Your task to perform on an android device: Open Youtube and go to the subscriptions tab Image 0: 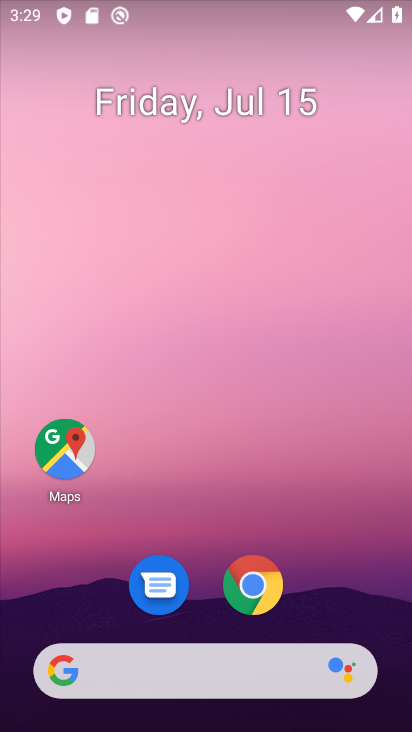
Step 0: drag from (217, 488) to (255, 28)
Your task to perform on an android device: Open Youtube and go to the subscriptions tab Image 1: 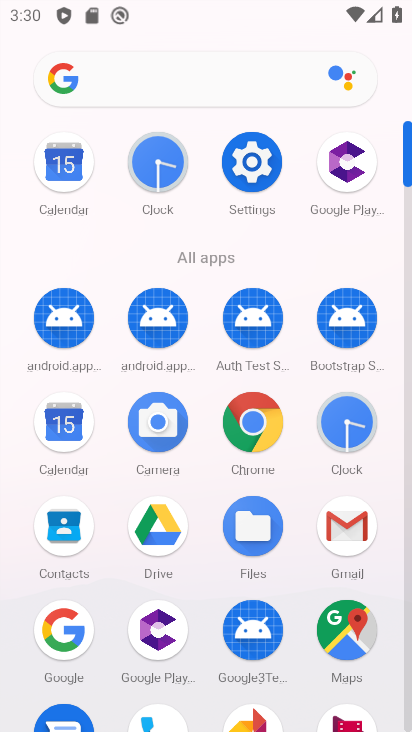
Step 1: drag from (215, 573) to (234, 132)
Your task to perform on an android device: Open Youtube and go to the subscriptions tab Image 2: 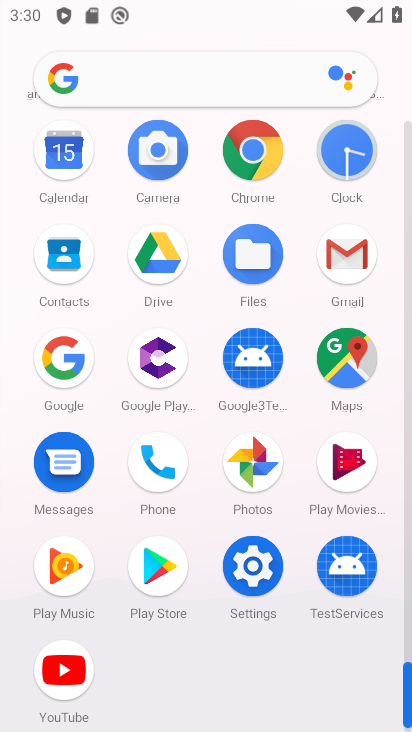
Step 2: click (72, 669)
Your task to perform on an android device: Open Youtube and go to the subscriptions tab Image 3: 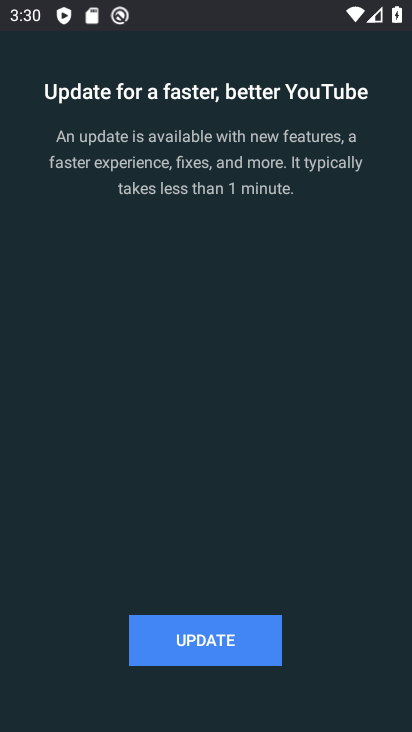
Step 3: click (176, 649)
Your task to perform on an android device: Open Youtube and go to the subscriptions tab Image 4: 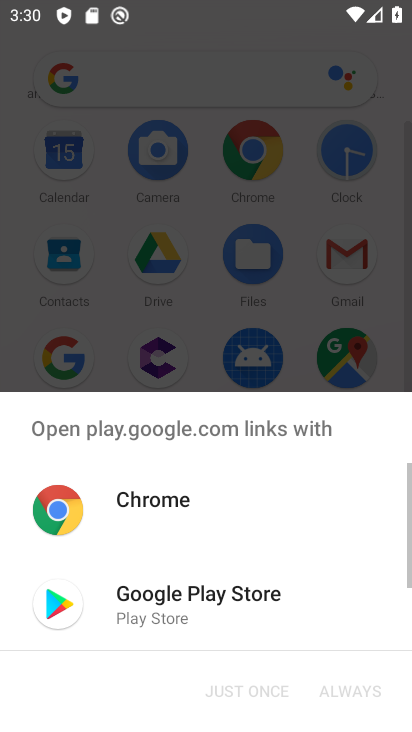
Step 4: click (163, 586)
Your task to perform on an android device: Open Youtube and go to the subscriptions tab Image 5: 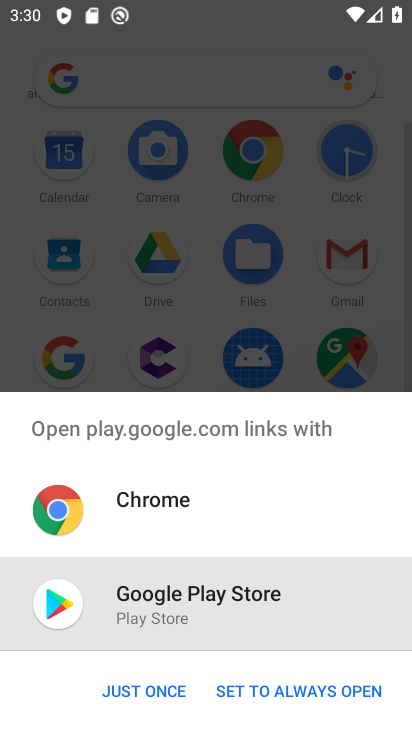
Step 5: click (159, 692)
Your task to perform on an android device: Open Youtube and go to the subscriptions tab Image 6: 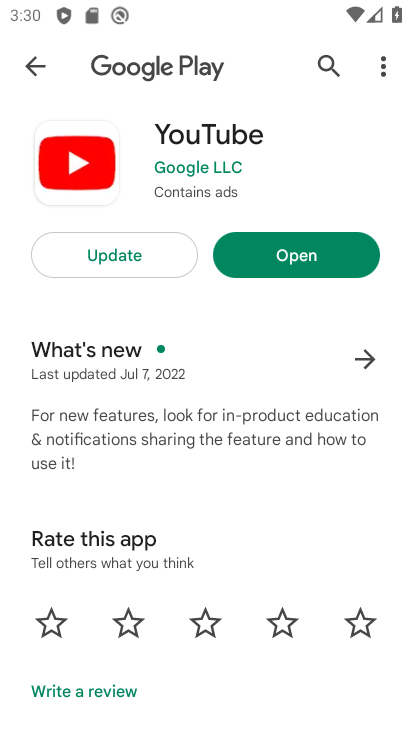
Step 6: click (134, 256)
Your task to perform on an android device: Open Youtube and go to the subscriptions tab Image 7: 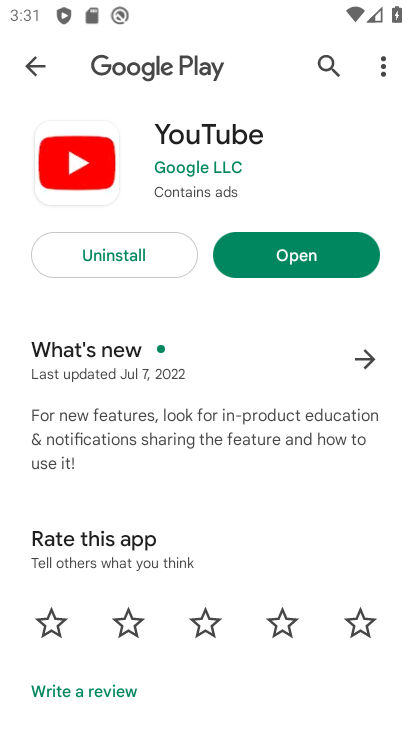
Step 7: click (343, 255)
Your task to perform on an android device: Open Youtube and go to the subscriptions tab Image 8: 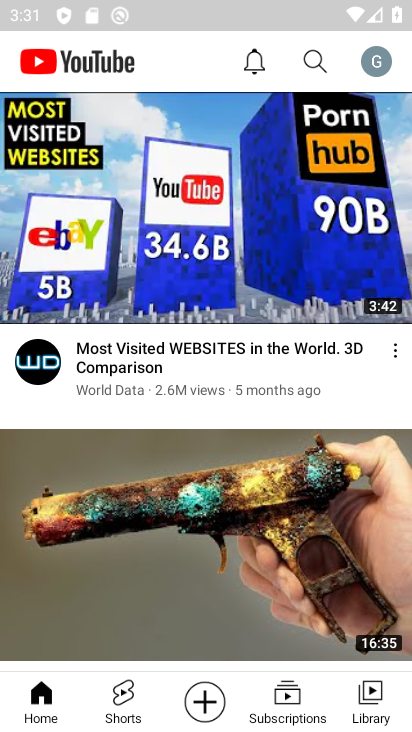
Step 8: click (290, 700)
Your task to perform on an android device: Open Youtube and go to the subscriptions tab Image 9: 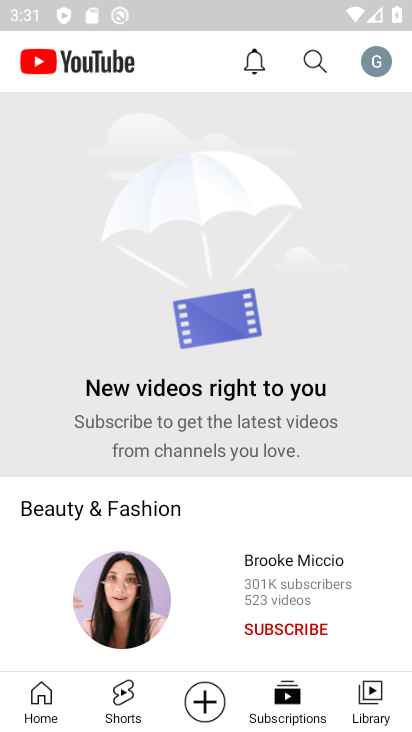
Step 9: task complete